Your task to perform on an android device: Go to eBay Image 0: 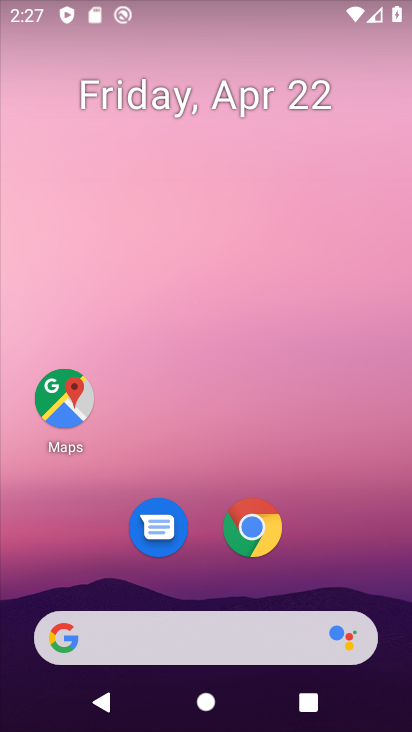
Step 0: drag from (391, 629) to (258, 74)
Your task to perform on an android device: Go to eBay Image 1: 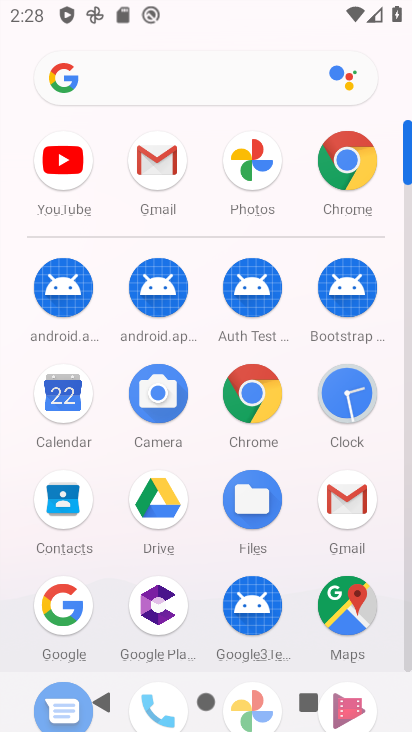
Step 1: click (258, 386)
Your task to perform on an android device: Go to eBay Image 2: 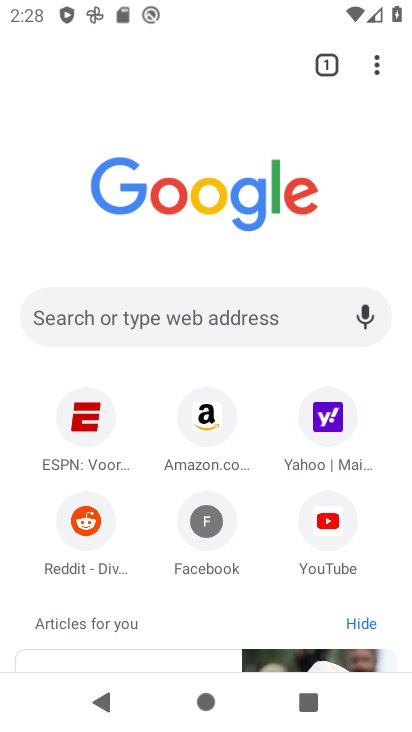
Step 2: click (199, 320)
Your task to perform on an android device: Go to eBay Image 3: 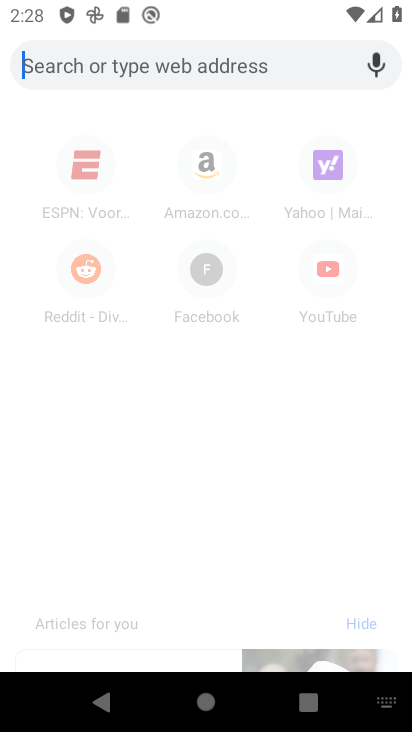
Step 3: type "ebay"
Your task to perform on an android device: Go to eBay Image 4: 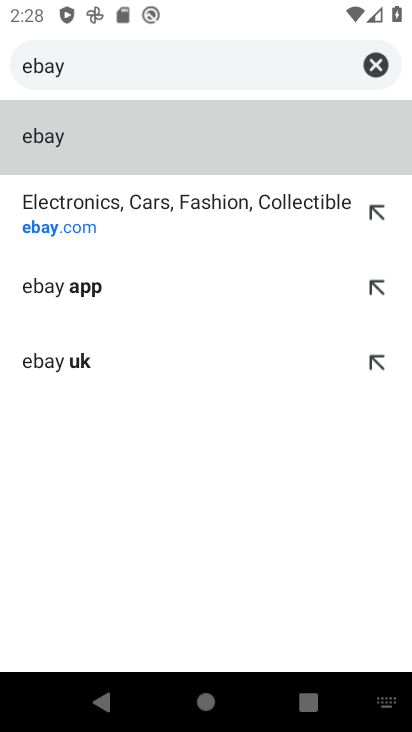
Step 4: click (216, 153)
Your task to perform on an android device: Go to eBay Image 5: 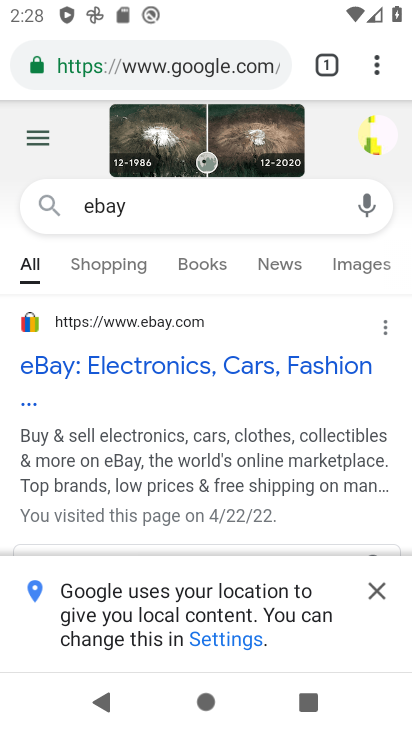
Step 5: task complete